Your task to perform on an android device: Go to settings Image 0: 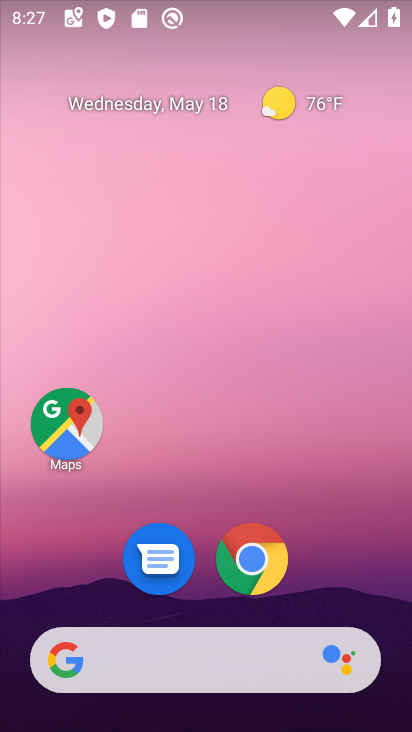
Step 0: drag from (199, 590) to (244, 34)
Your task to perform on an android device: Go to settings Image 1: 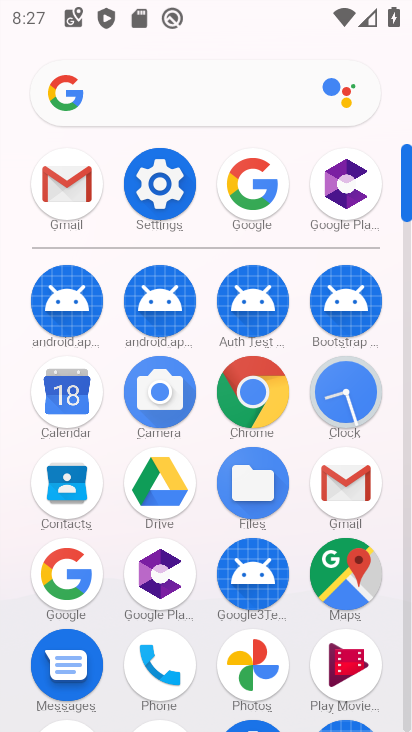
Step 1: click (159, 183)
Your task to perform on an android device: Go to settings Image 2: 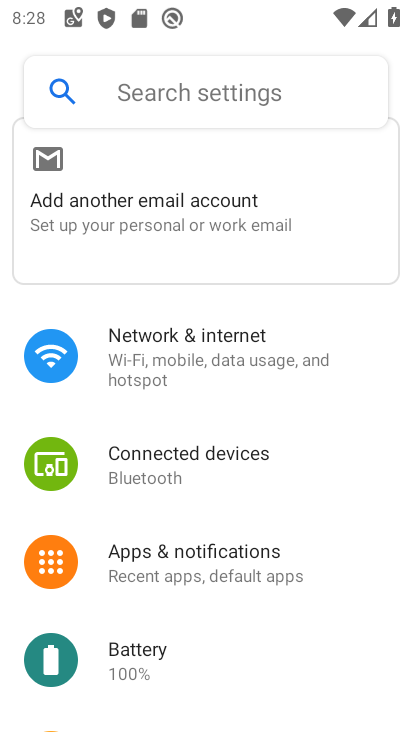
Step 2: task complete